Your task to perform on an android device: add a label to a message in the gmail app Image 0: 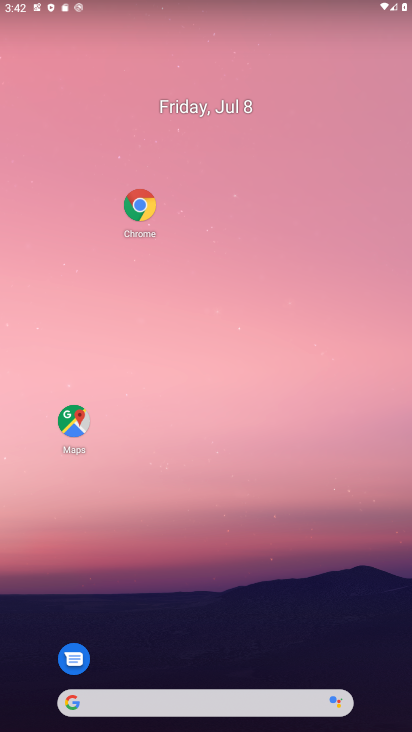
Step 0: drag from (191, 635) to (217, 160)
Your task to perform on an android device: add a label to a message in the gmail app Image 1: 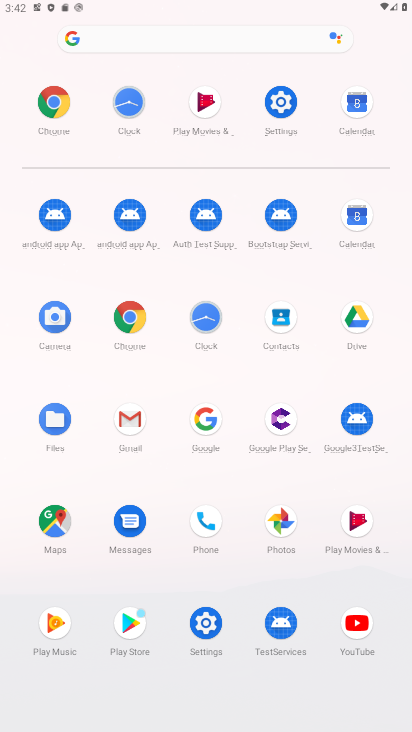
Step 1: click (137, 432)
Your task to perform on an android device: add a label to a message in the gmail app Image 2: 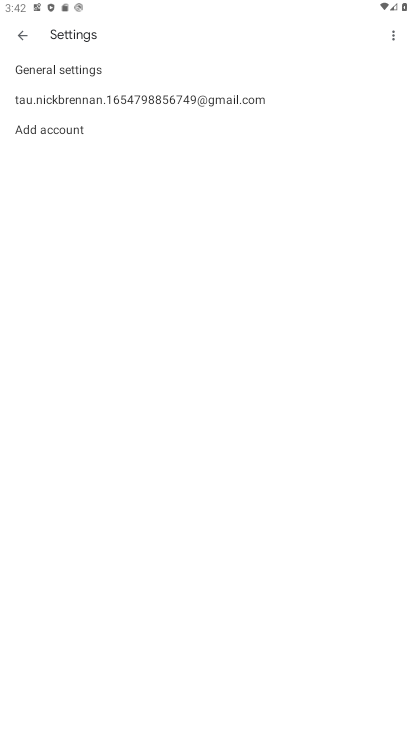
Step 2: click (20, 29)
Your task to perform on an android device: add a label to a message in the gmail app Image 3: 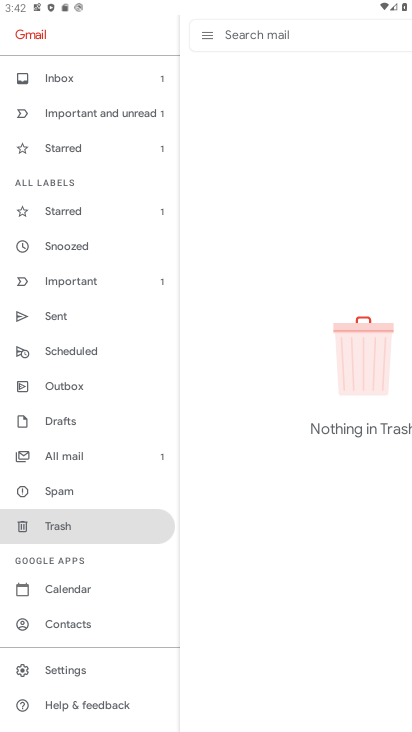
Step 3: click (83, 456)
Your task to perform on an android device: add a label to a message in the gmail app Image 4: 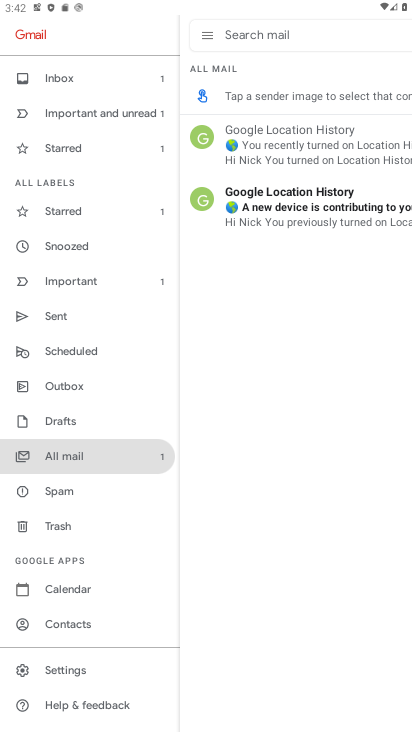
Step 4: click (241, 217)
Your task to perform on an android device: add a label to a message in the gmail app Image 5: 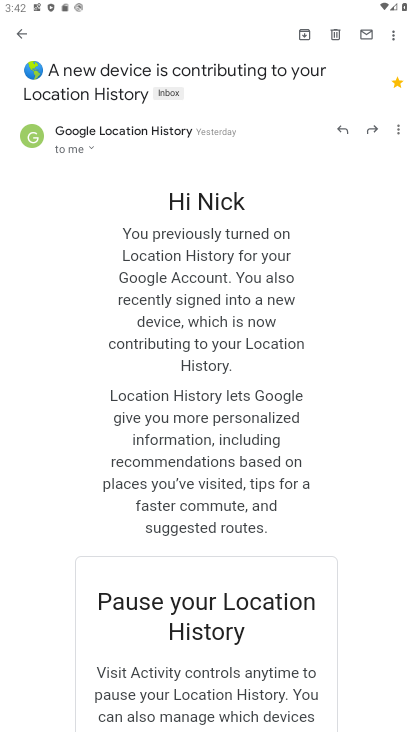
Step 5: click (394, 32)
Your task to perform on an android device: add a label to a message in the gmail app Image 6: 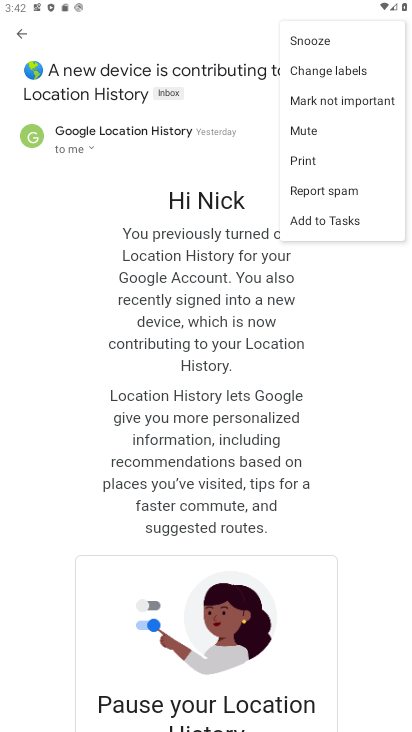
Step 6: click (319, 75)
Your task to perform on an android device: add a label to a message in the gmail app Image 7: 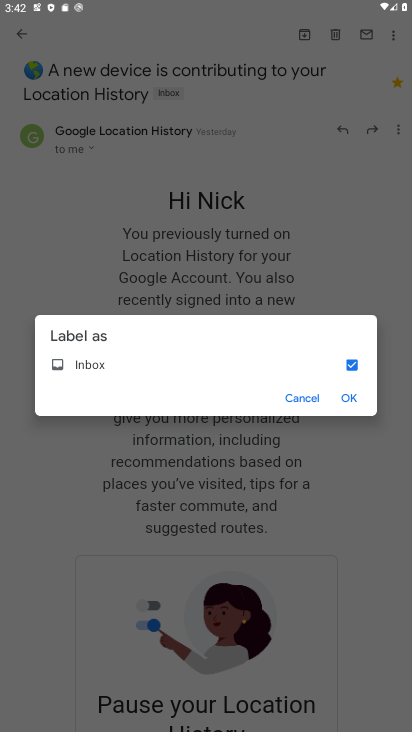
Step 7: click (351, 399)
Your task to perform on an android device: add a label to a message in the gmail app Image 8: 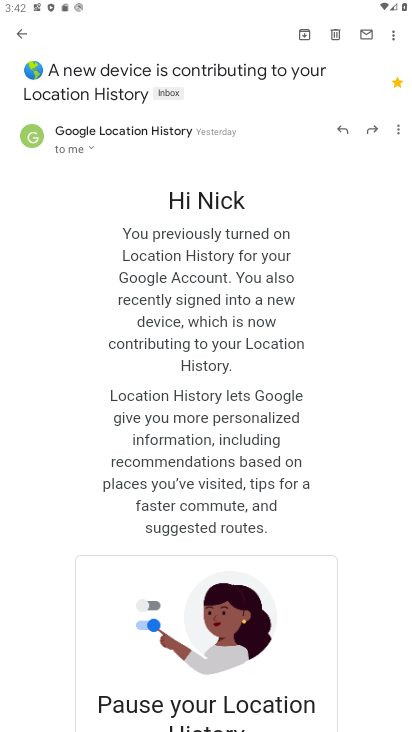
Step 8: task complete